Your task to perform on an android device: turn off notifications in google photos Image 0: 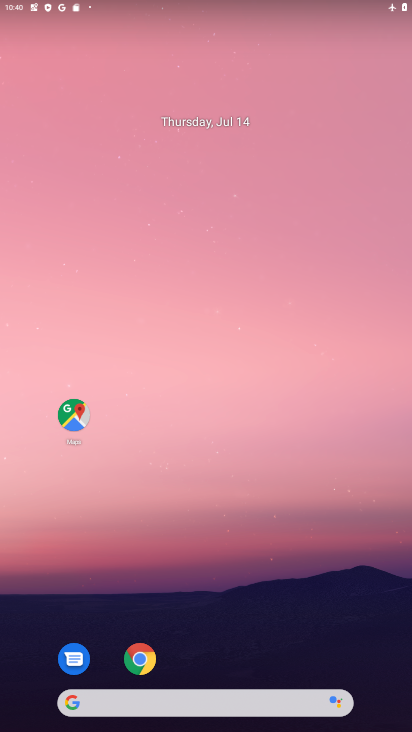
Step 0: drag from (340, 640) to (325, 266)
Your task to perform on an android device: turn off notifications in google photos Image 1: 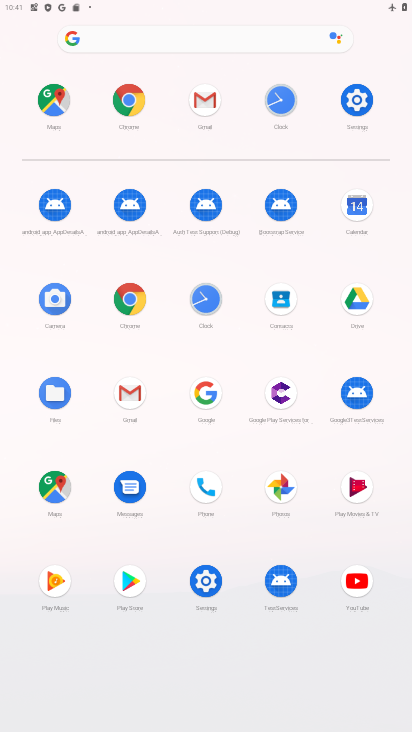
Step 1: click (280, 482)
Your task to perform on an android device: turn off notifications in google photos Image 2: 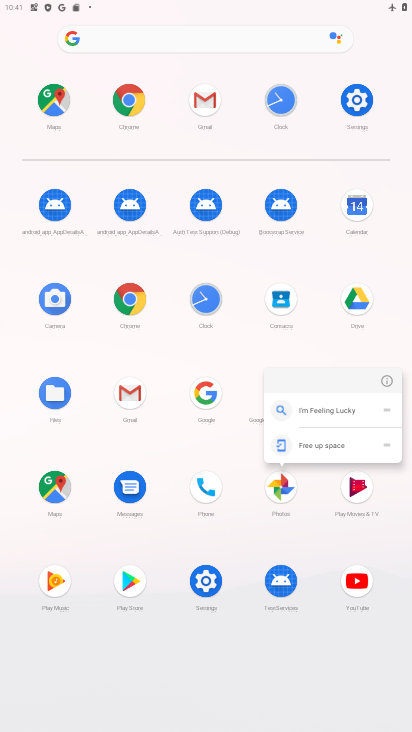
Step 2: click (282, 491)
Your task to perform on an android device: turn off notifications in google photos Image 3: 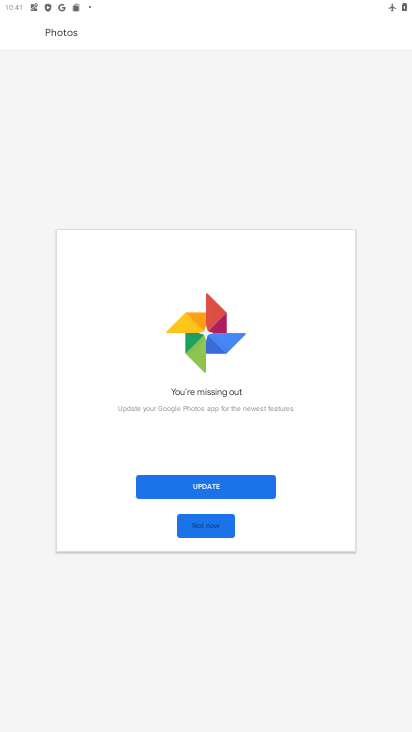
Step 3: click (220, 524)
Your task to perform on an android device: turn off notifications in google photos Image 4: 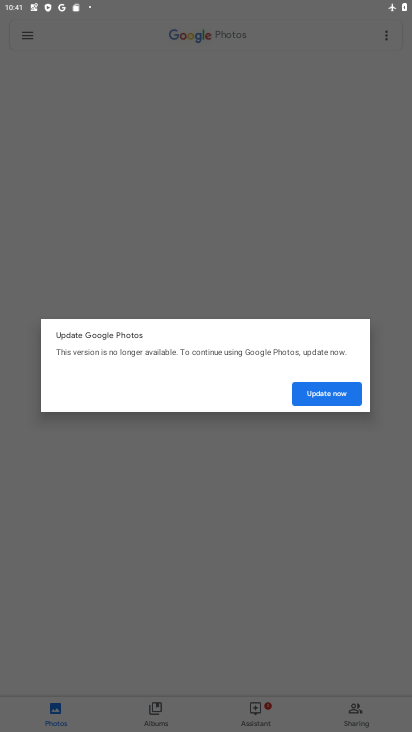
Step 4: click (320, 390)
Your task to perform on an android device: turn off notifications in google photos Image 5: 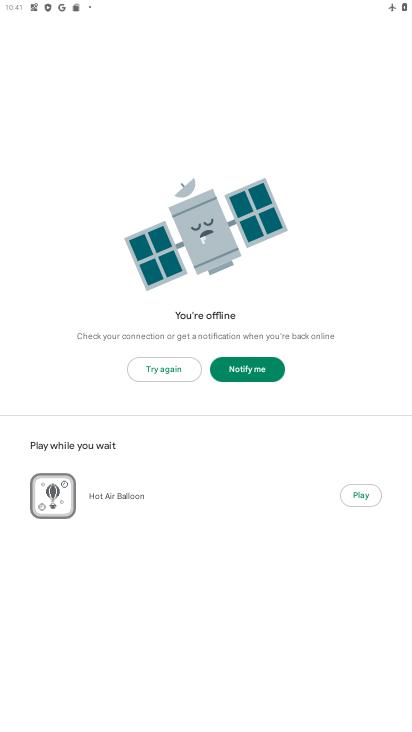
Step 5: task complete